Your task to perform on an android device: find photos in the google photos app Image 0: 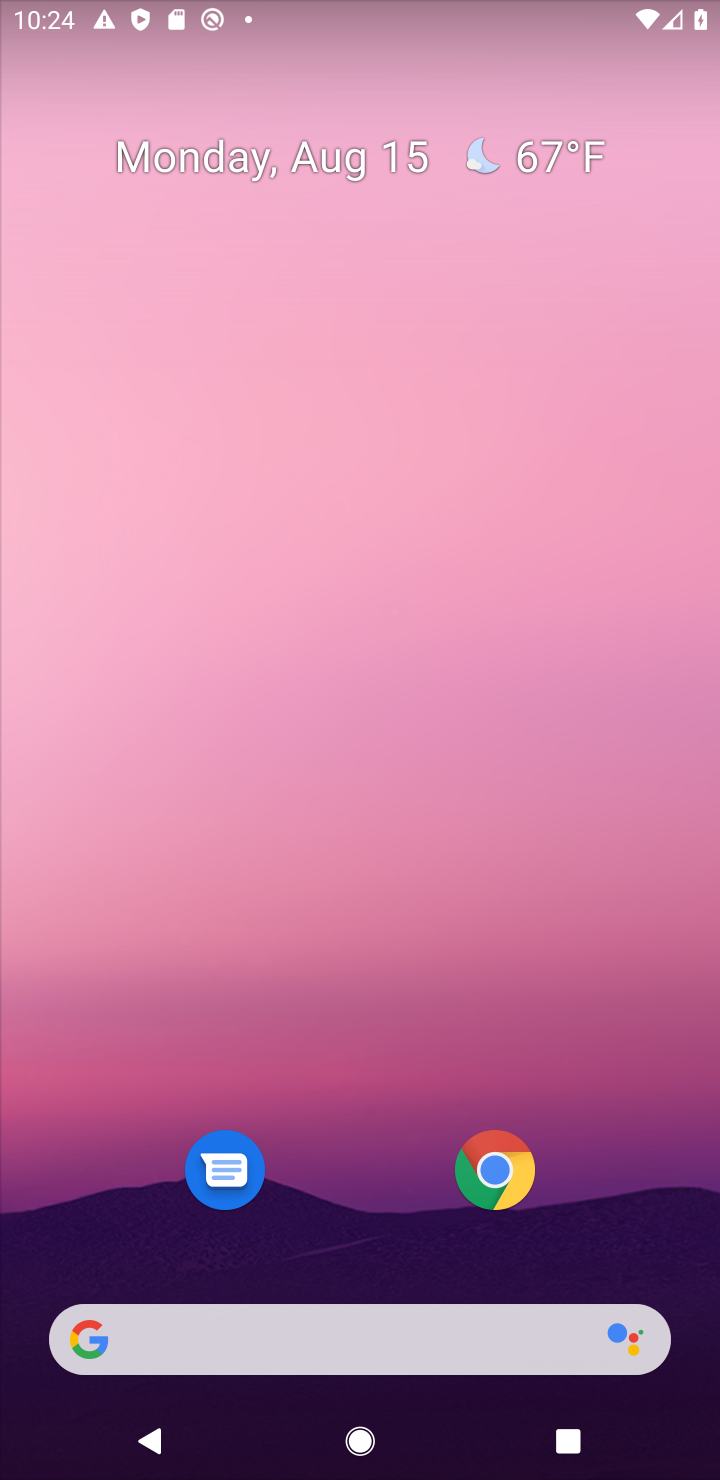
Step 0: drag from (414, 1262) to (418, 68)
Your task to perform on an android device: find photos in the google photos app Image 1: 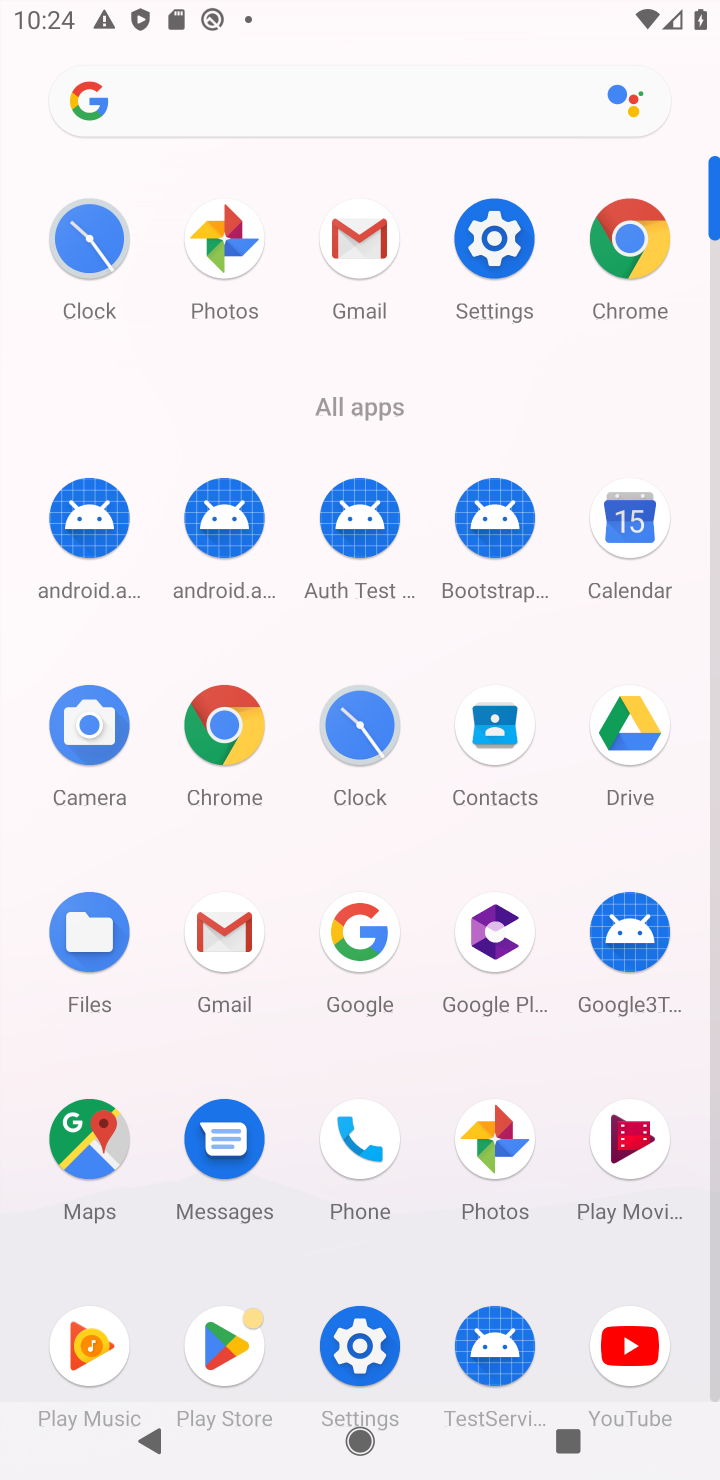
Step 1: click (491, 1125)
Your task to perform on an android device: find photos in the google photos app Image 2: 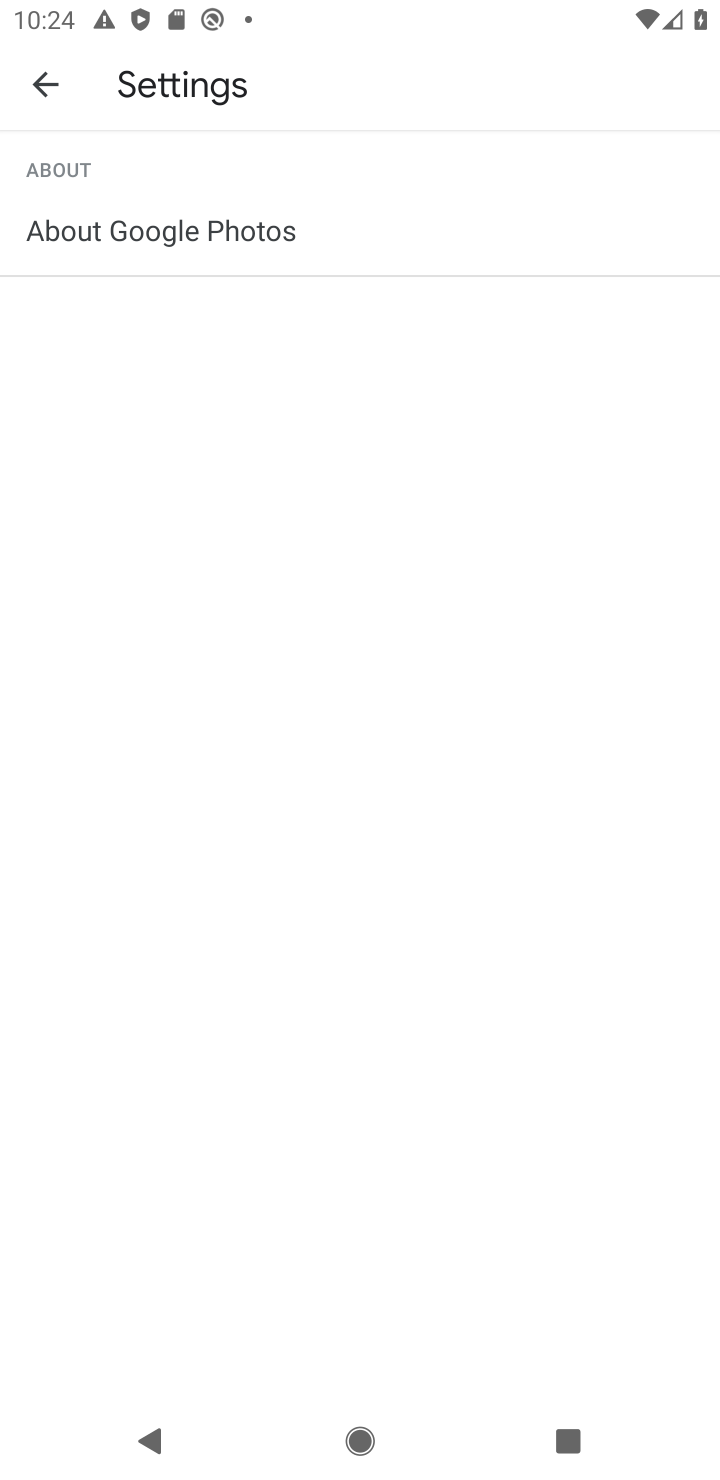
Step 2: click (38, 81)
Your task to perform on an android device: find photos in the google photos app Image 3: 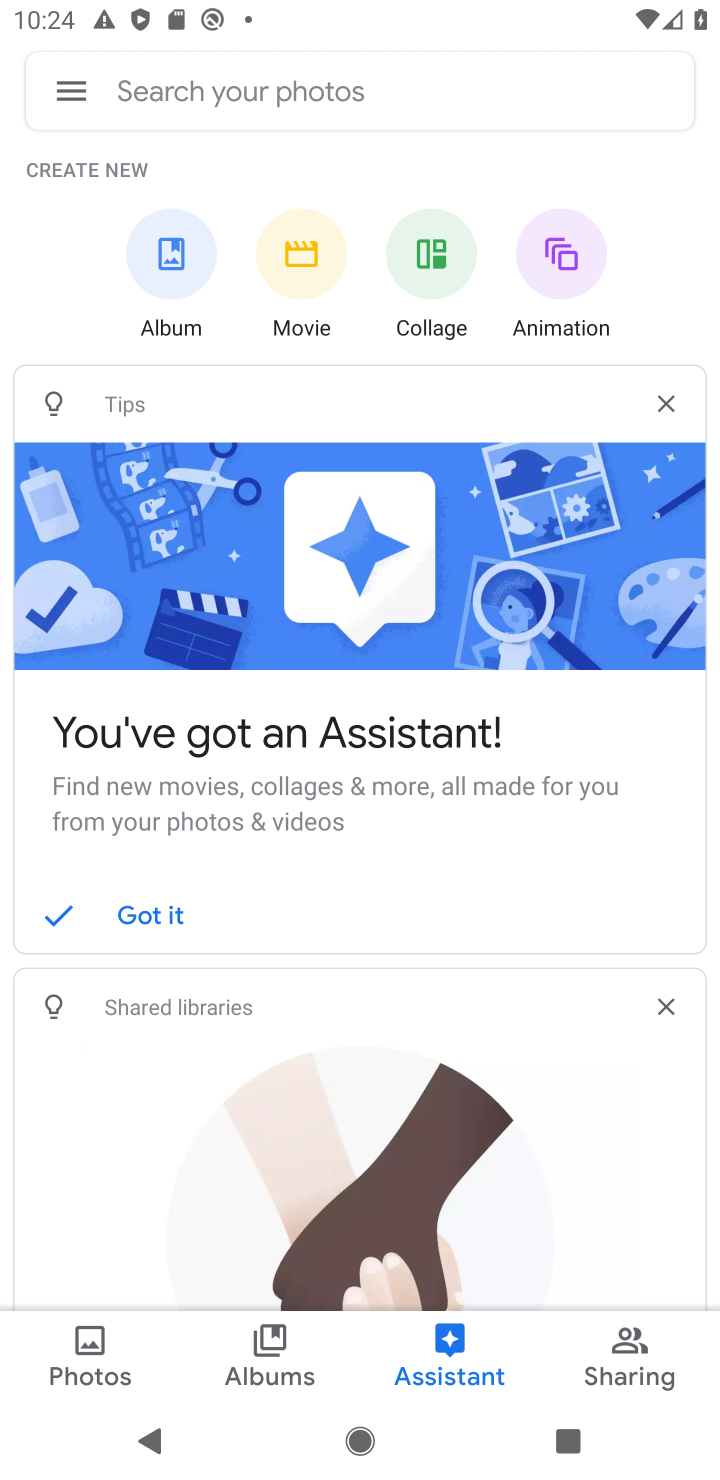
Step 3: click (82, 1347)
Your task to perform on an android device: find photos in the google photos app Image 4: 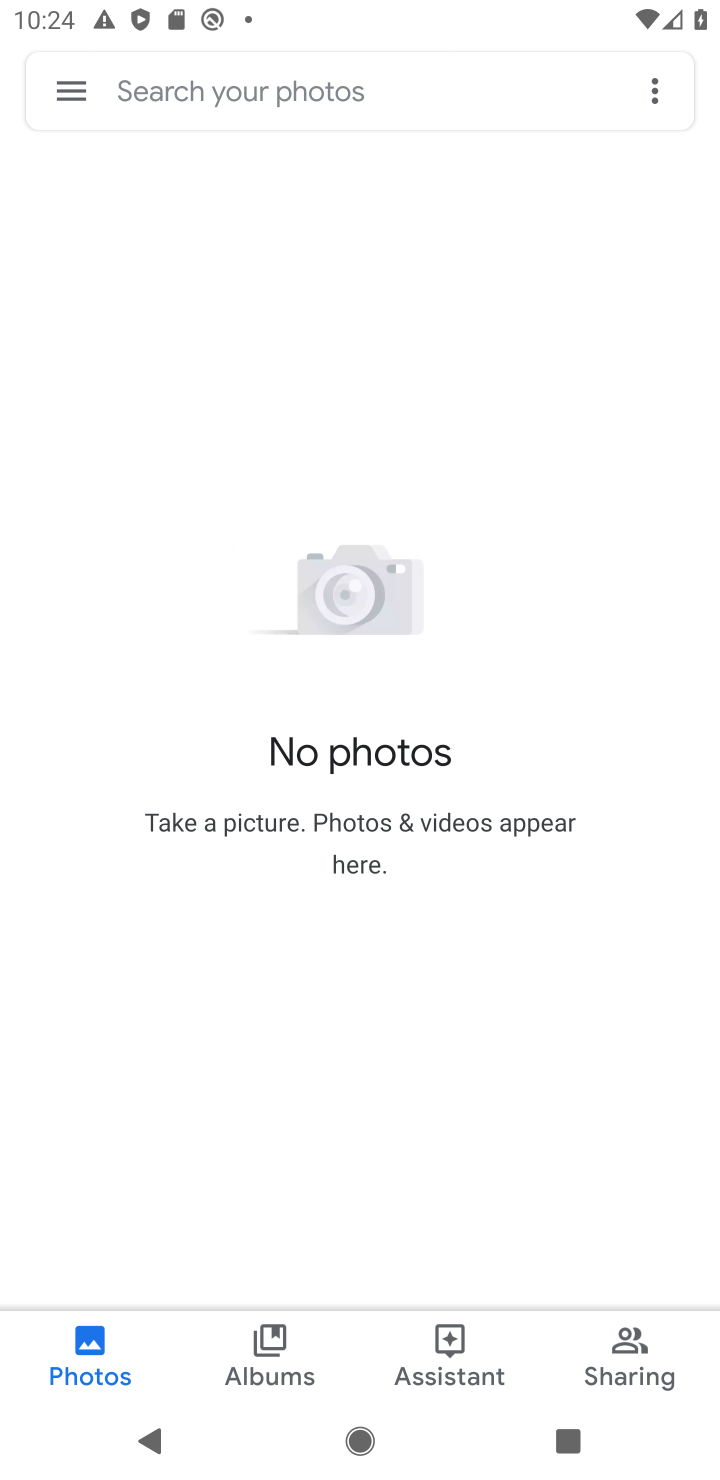
Step 4: task complete